Your task to perform on an android device: turn on showing notifications on the lock screen Image 0: 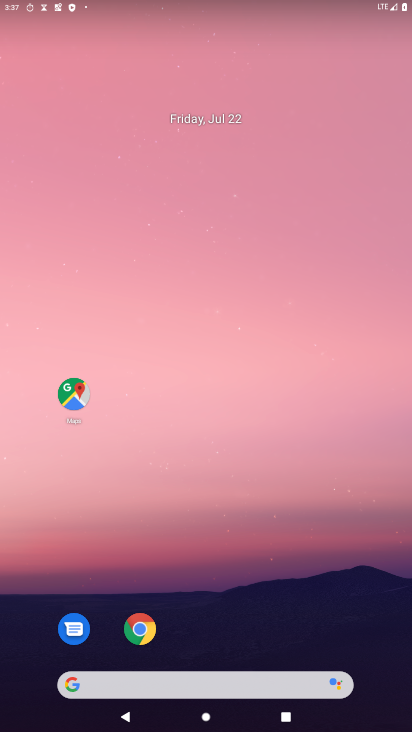
Step 0: drag from (275, 673) to (294, 100)
Your task to perform on an android device: turn on showing notifications on the lock screen Image 1: 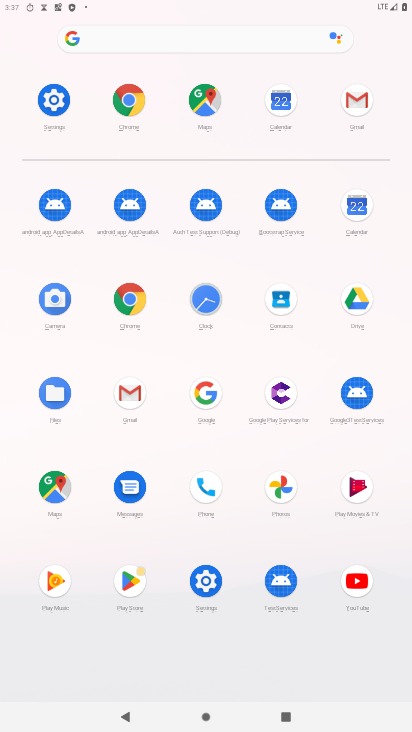
Step 1: click (195, 584)
Your task to perform on an android device: turn on showing notifications on the lock screen Image 2: 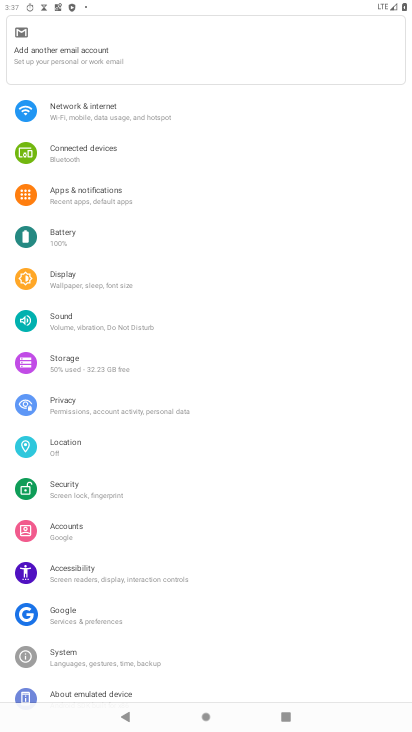
Step 2: click (126, 187)
Your task to perform on an android device: turn on showing notifications on the lock screen Image 3: 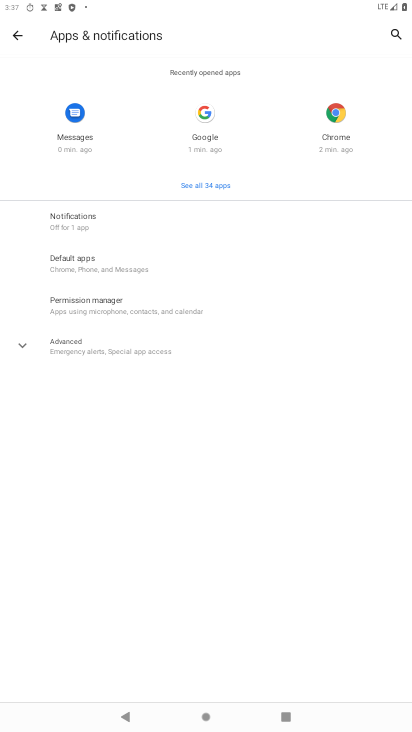
Step 3: click (113, 227)
Your task to perform on an android device: turn on showing notifications on the lock screen Image 4: 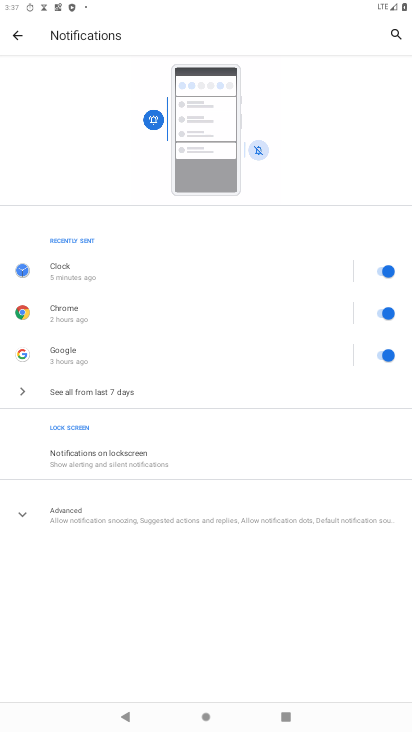
Step 4: click (106, 514)
Your task to perform on an android device: turn on showing notifications on the lock screen Image 5: 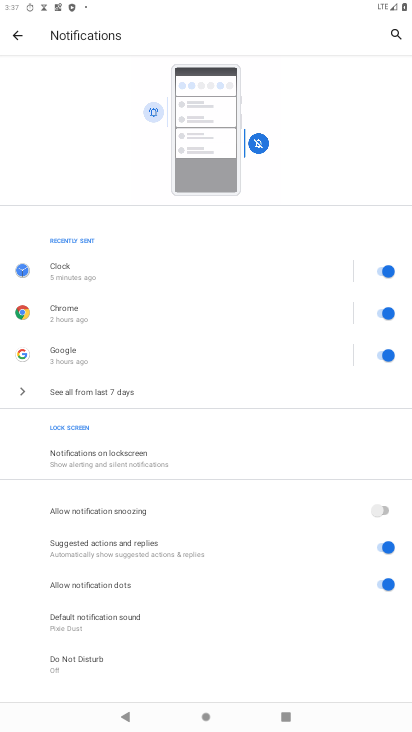
Step 5: click (116, 461)
Your task to perform on an android device: turn on showing notifications on the lock screen Image 6: 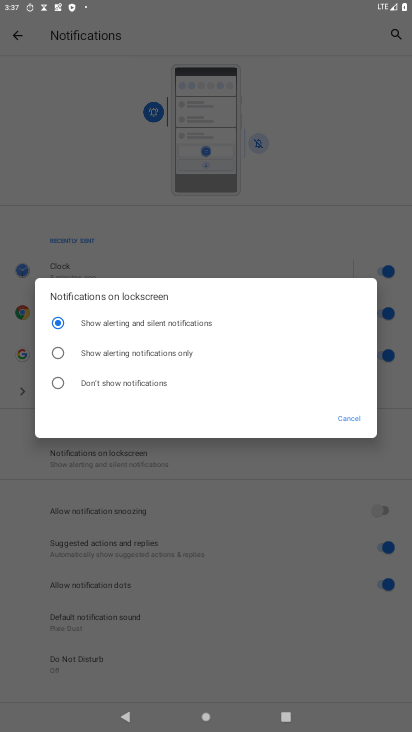
Step 6: task complete